Your task to perform on an android device: Search for a 100 ft extension cord Image 0: 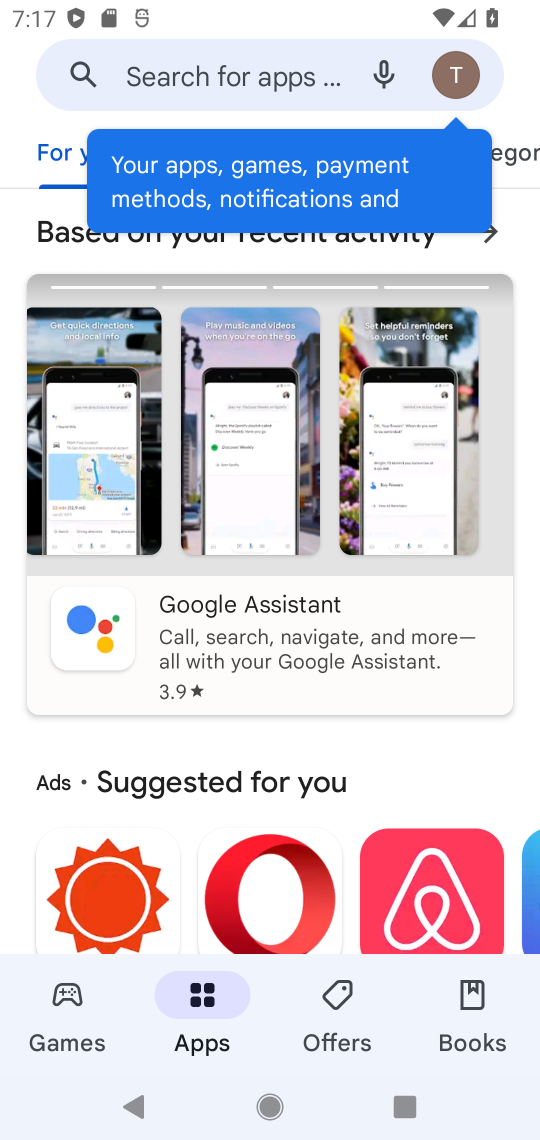
Step 0: press home button
Your task to perform on an android device: Search for a 100 ft extension cord Image 1: 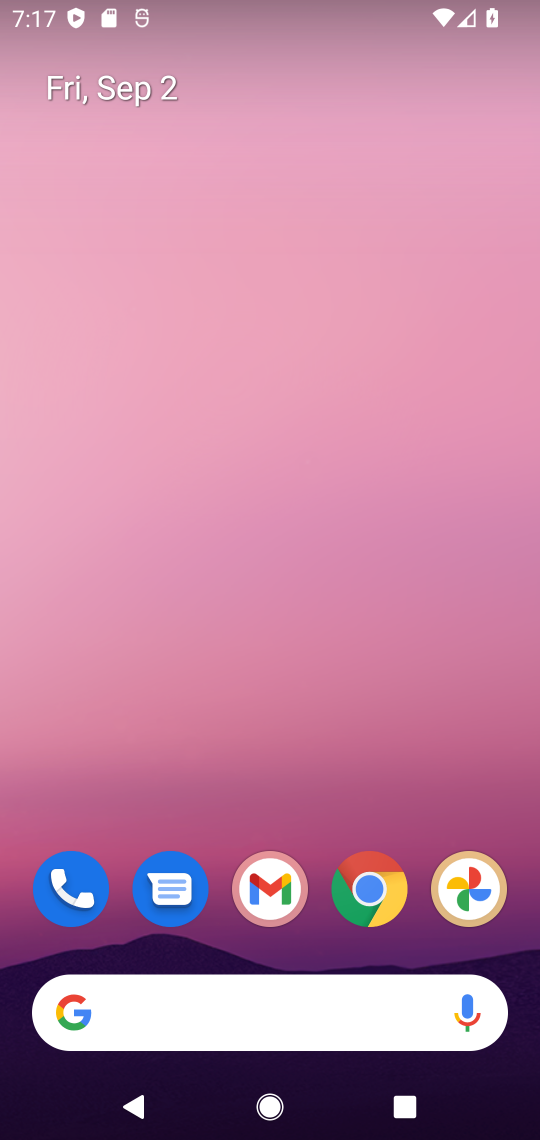
Step 1: click (318, 1005)
Your task to perform on an android device: Search for a 100 ft extension cord Image 2: 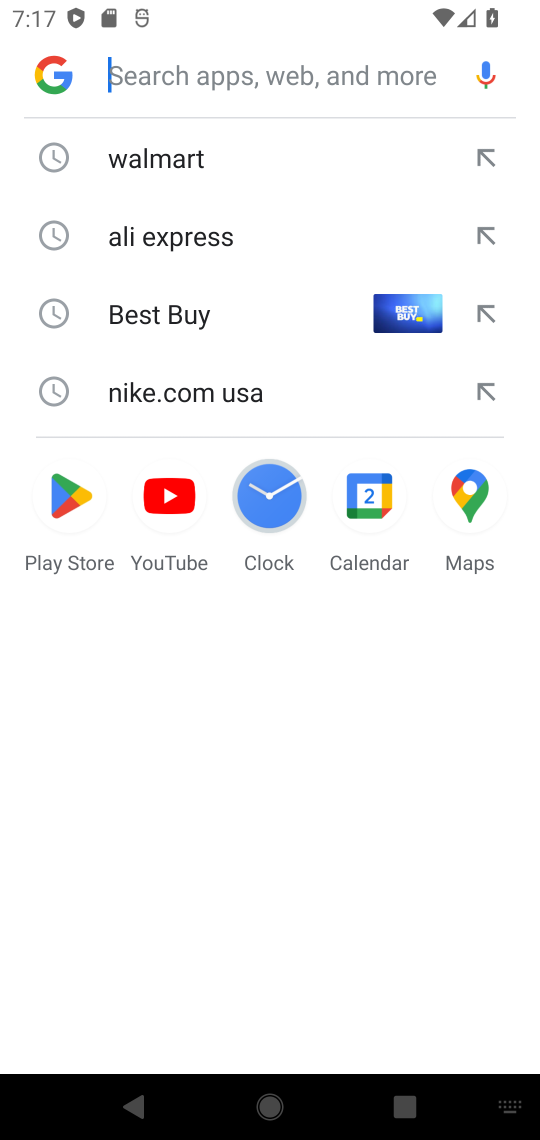
Step 2: type "100 ft extension cord"
Your task to perform on an android device: Search for a 100 ft extension cord Image 3: 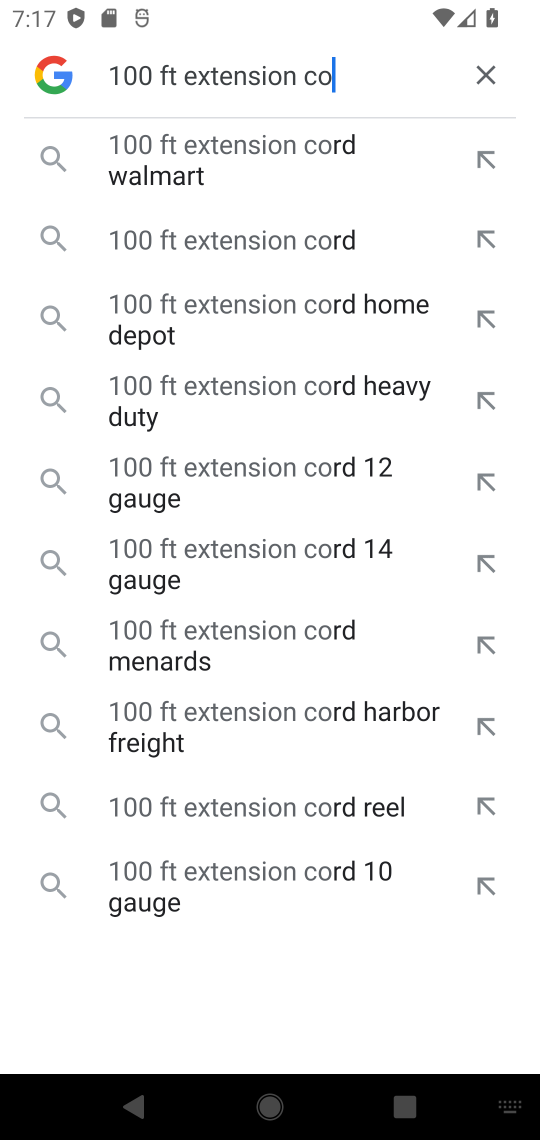
Step 3: type ""
Your task to perform on an android device: Search for a 100 ft extension cord Image 4: 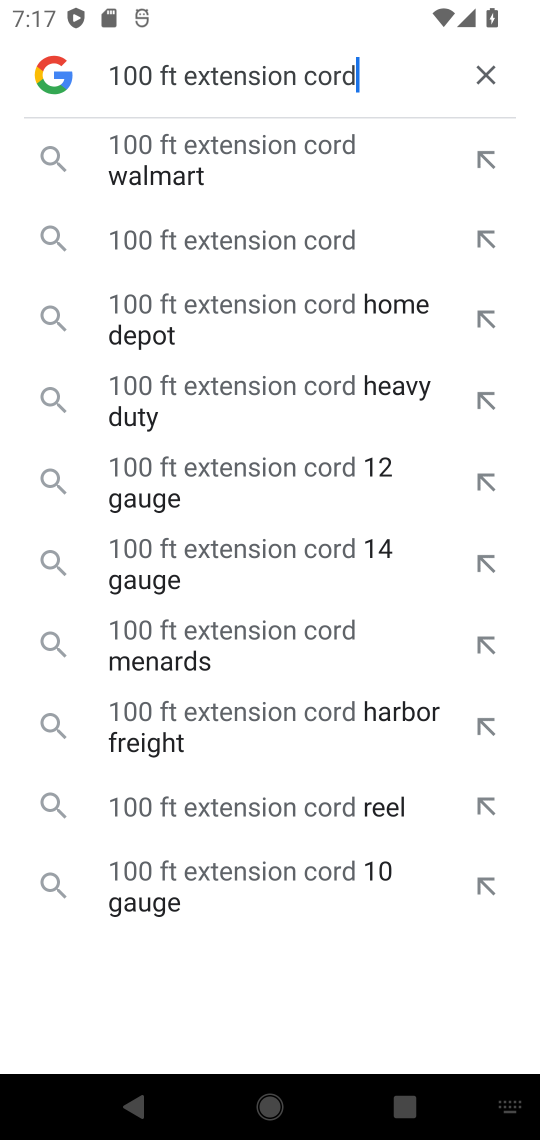
Step 4: click (253, 178)
Your task to perform on an android device: Search for a 100 ft extension cord Image 5: 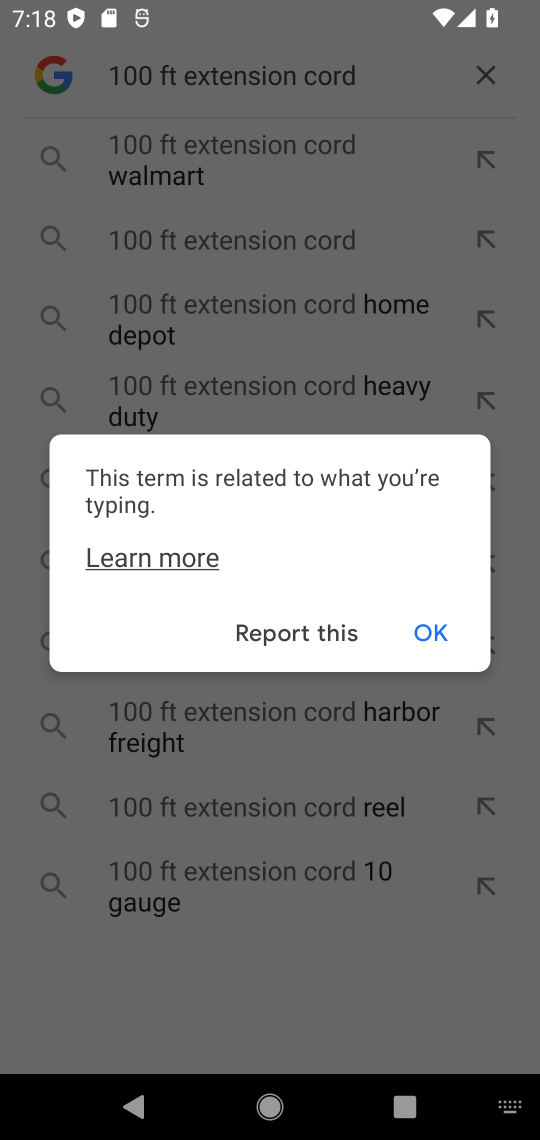
Step 5: click (422, 613)
Your task to perform on an android device: Search for a 100 ft extension cord Image 6: 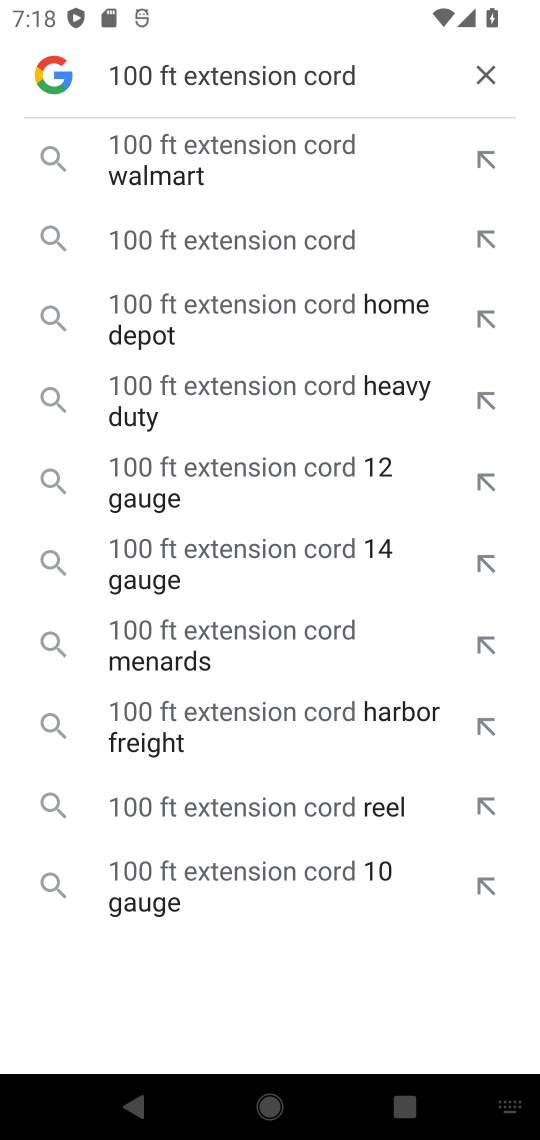
Step 6: click (225, 244)
Your task to perform on an android device: Search for a 100 ft extension cord Image 7: 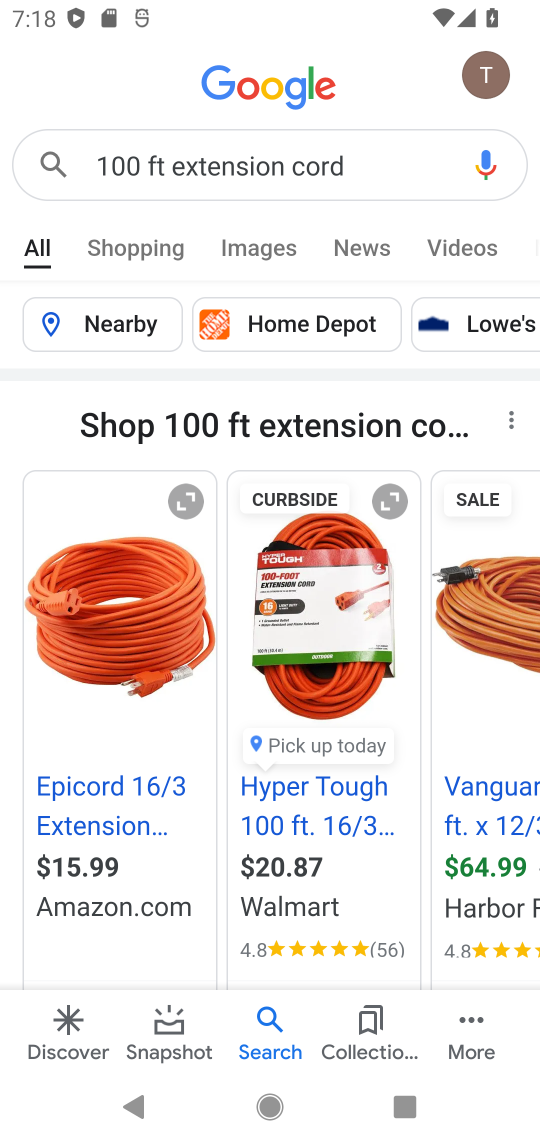
Step 7: click (219, 191)
Your task to perform on an android device: Search for a 100 ft extension cord Image 8: 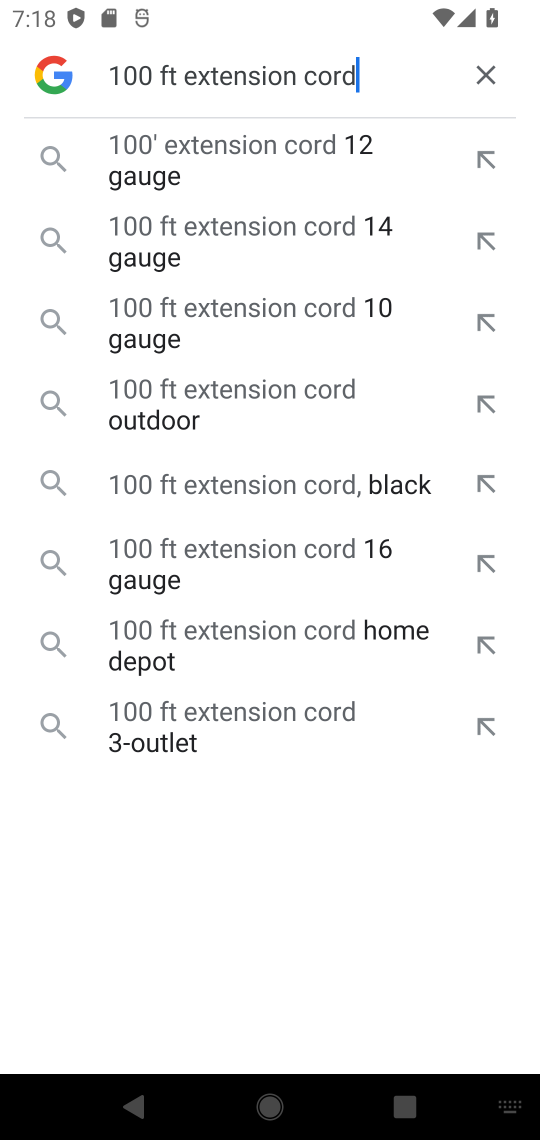
Step 8: task complete